Your task to perform on an android device: Open Chrome and go to the settings page Image 0: 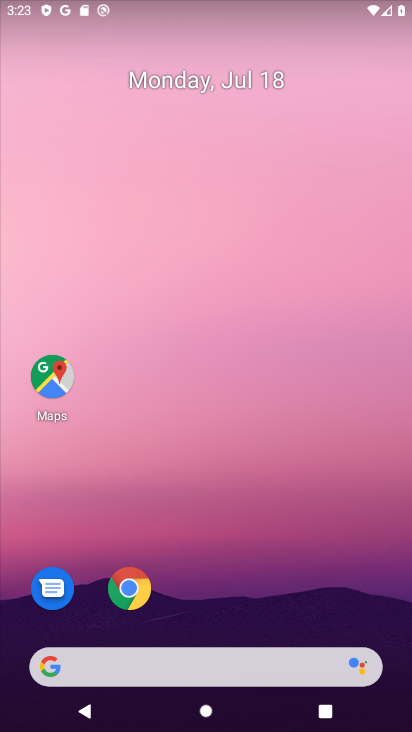
Step 0: press home button
Your task to perform on an android device: Open Chrome and go to the settings page Image 1: 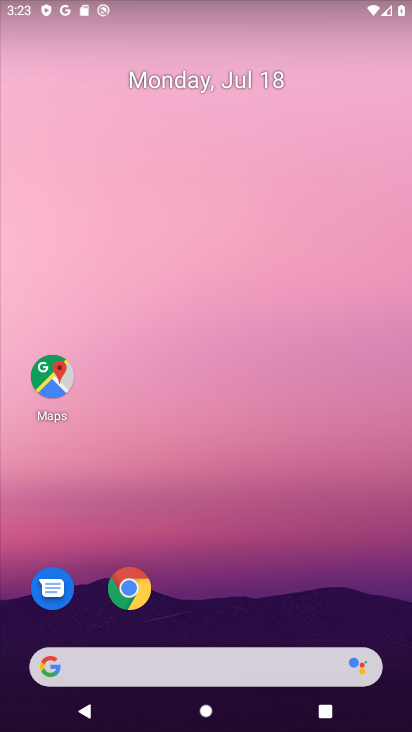
Step 1: click (125, 585)
Your task to perform on an android device: Open Chrome and go to the settings page Image 2: 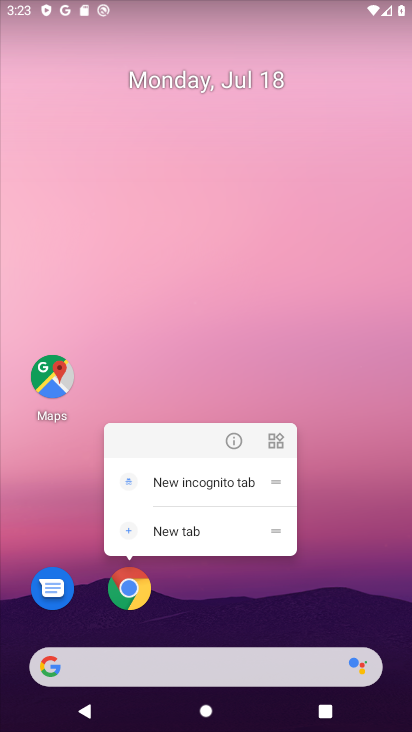
Step 2: click (134, 586)
Your task to perform on an android device: Open Chrome and go to the settings page Image 3: 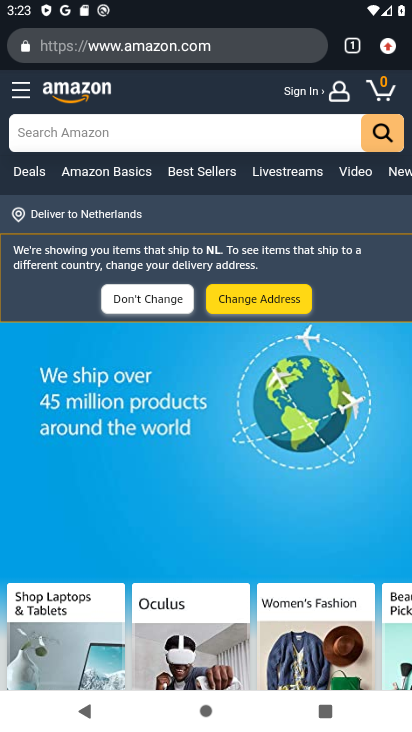
Step 3: click (391, 46)
Your task to perform on an android device: Open Chrome and go to the settings page Image 4: 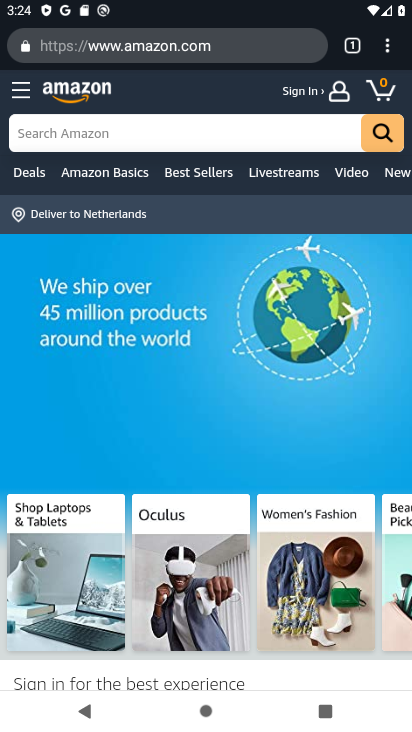
Step 4: click (391, 43)
Your task to perform on an android device: Open Chrome and go to the settings page Image 5: 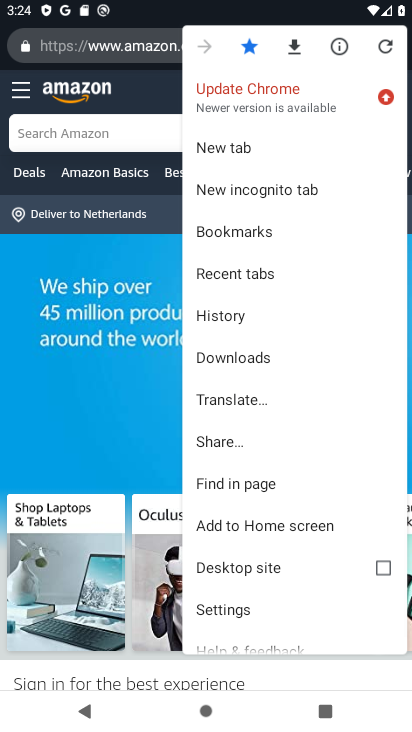
Step 5: click (251, 597)
Your task to perform on an android device: Open Chrome and go to the settings page Image 6: 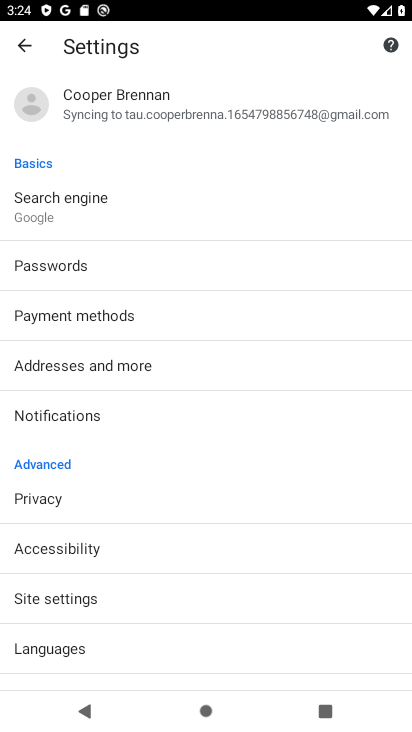
Step 6: task complete